Your task to perform on an android device: change the upload size in google photos Image 0: 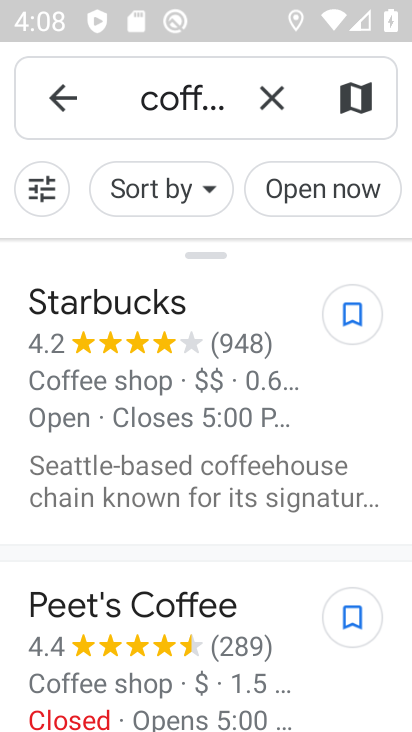
Step 0: press home button
Your task to perform on an android device: change the upload size in google photos Image 1: 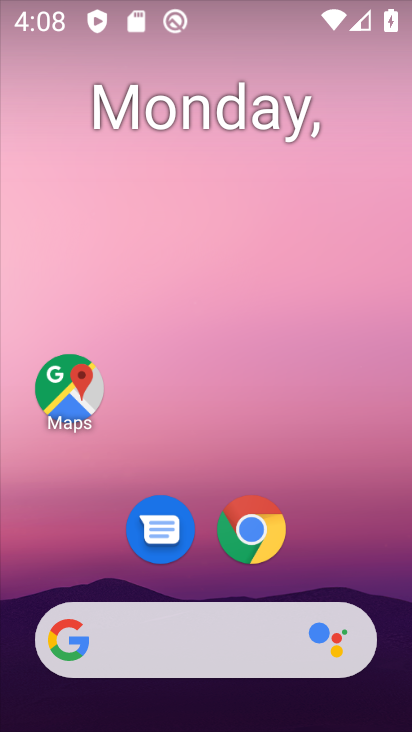
Step 1: drag from (200, 570) to (303, 50)
Your task to perform on an android device: change the upload size in google photos Image 2: 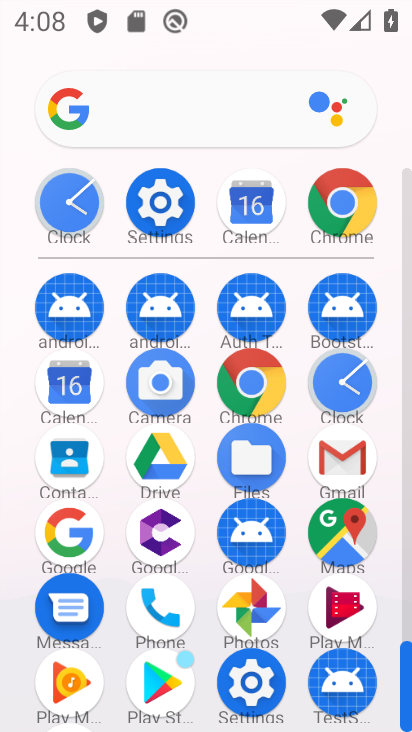
Step 2: click (265, 611)
Your task to perform on an android device: change the upload size in google photos Image 3: 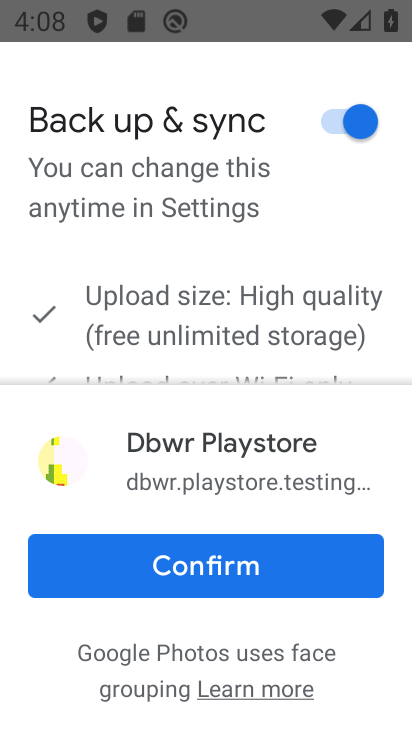
Step 3: click (264, 580)
Your task to perform on an android device: change the upload size in google photos Image 4: 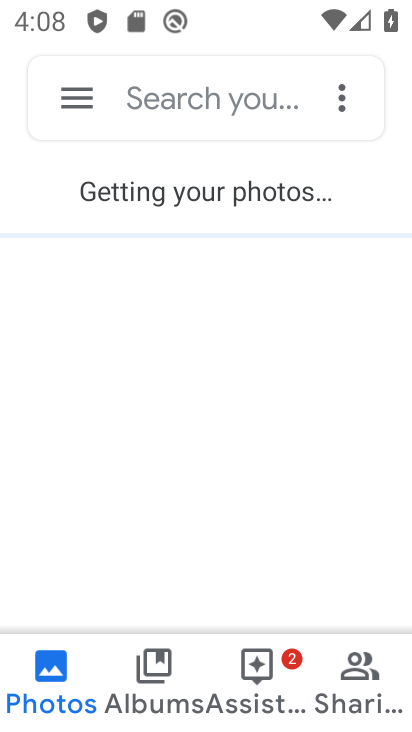
Step 4: click (86, 88)
Your task to perform on an android device: change the upload size in google photos Image 5: 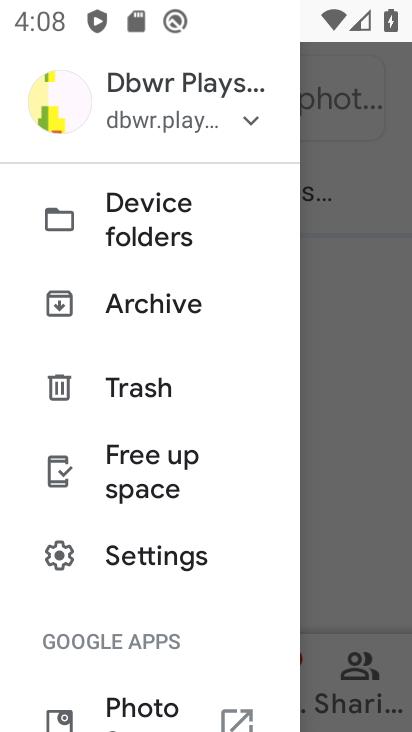
Step 5: click (151, 555)
Your task to perform on an android device: change the upload size in google photos Image 6: 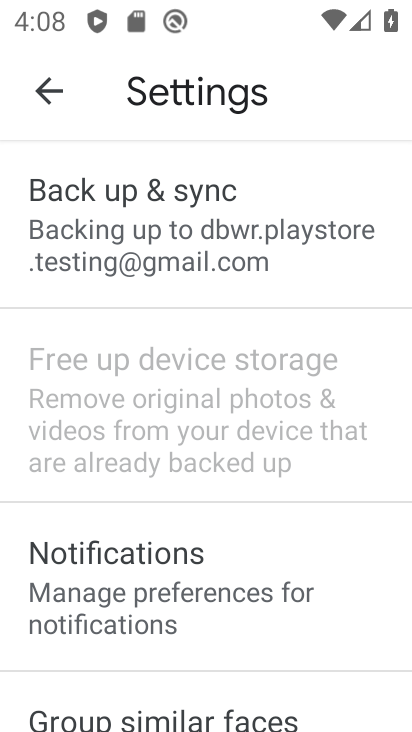
Step 6: click (176, 240)
Your task to perform on an android device: change the upload size in google photos Image 7: 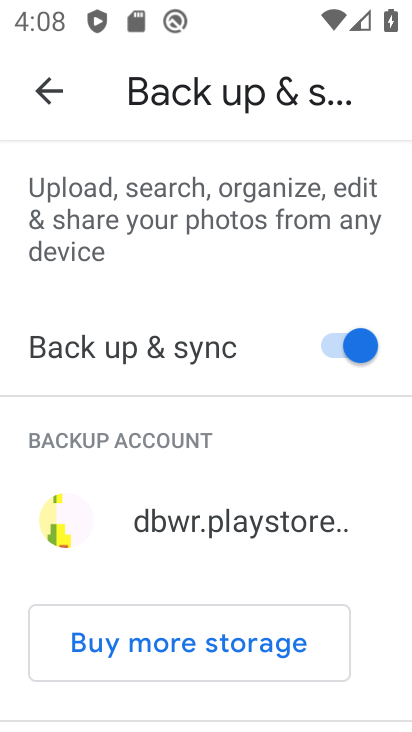
Step 7: drag from (222, 602) to (303, 84)
Your task to perform on an android device: change the upload size in google photos Image 8: 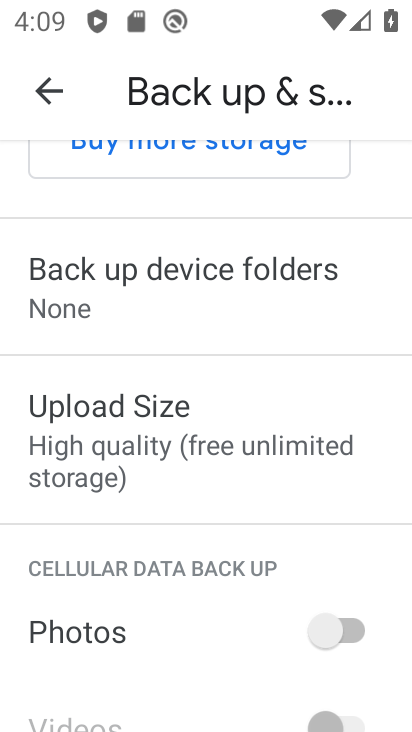
Step 8: click (220, 441)
Your task to perform on an android device: change the upload size in google photos Image 9: 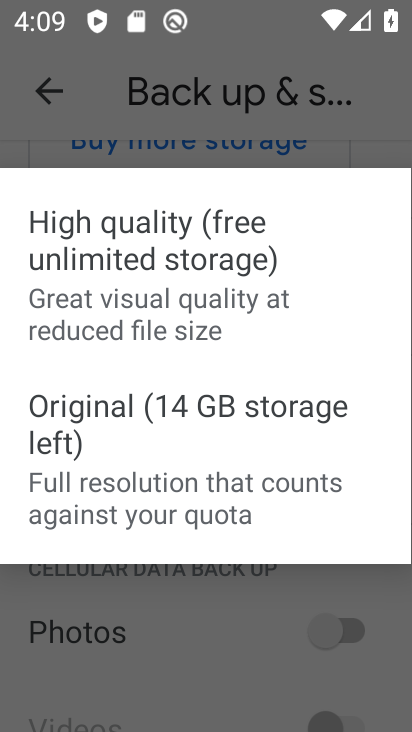
Step 9: click (185, 436)
Your task to perform on an android device: change the upload size in google photos Image 10: 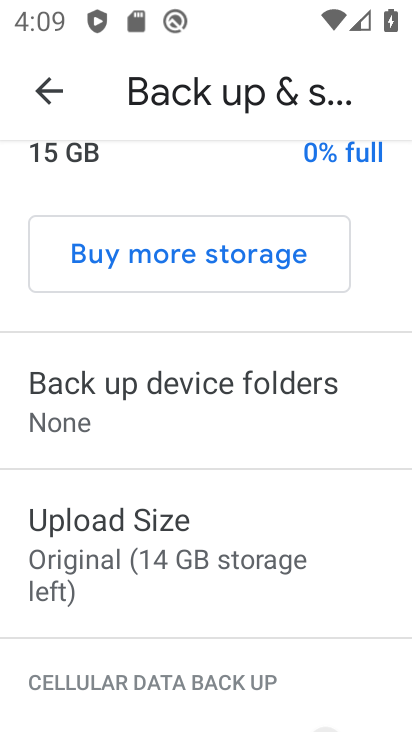
Step 10: task complete